Your task to perform on an android device: Go to Reddit.com Image 0: 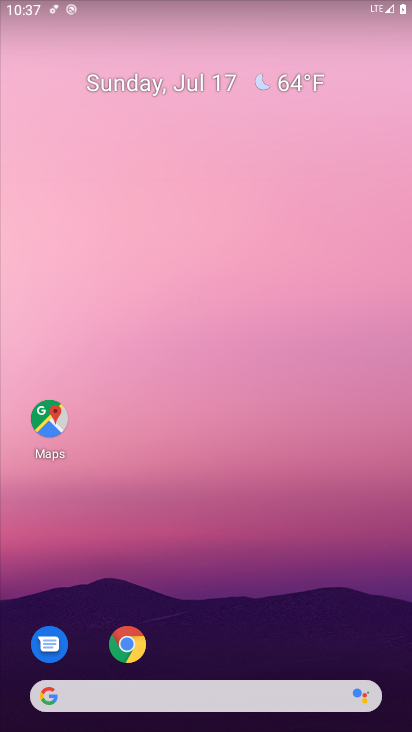
Step 0: press home button
Your task to perform on an android device: Go to Reddit.com Image 1: 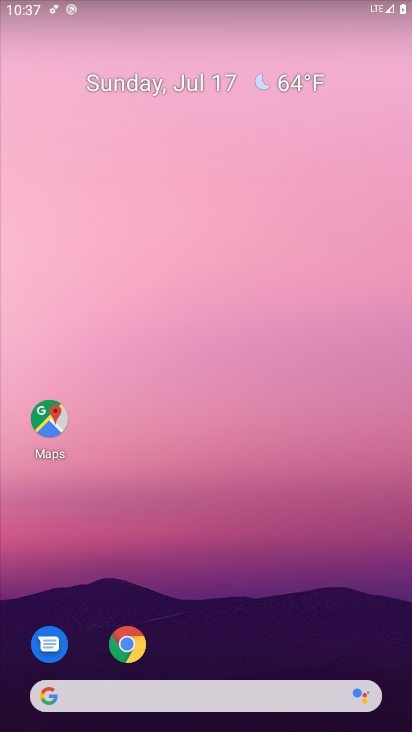
Step 1: click (50, 698)
Your task to perform on an android device: Go to Reddit.com Image 2: 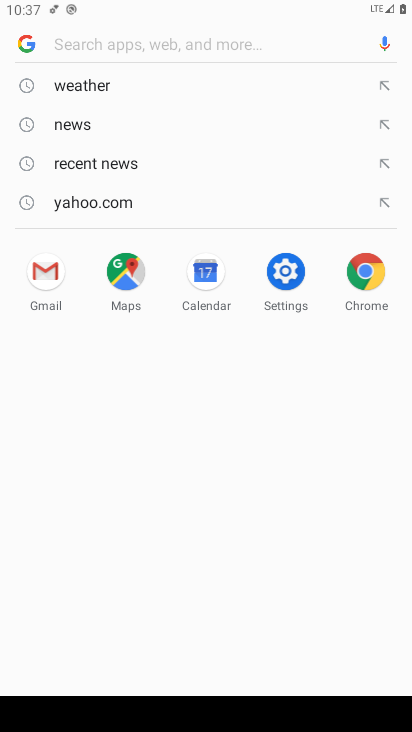
Step 2: type "Reddit.com"
Your task to perform on an android device: Go to Reddit.com Image 3: 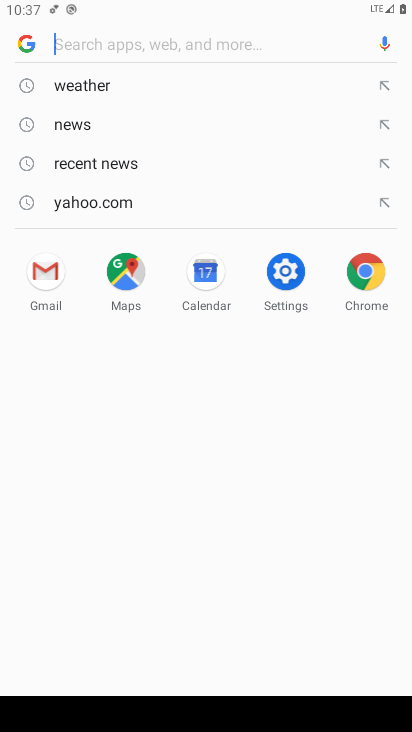
Step 3: click (58, 42)
Your task to perform on an android device: Go to Reddit.com Image 4: 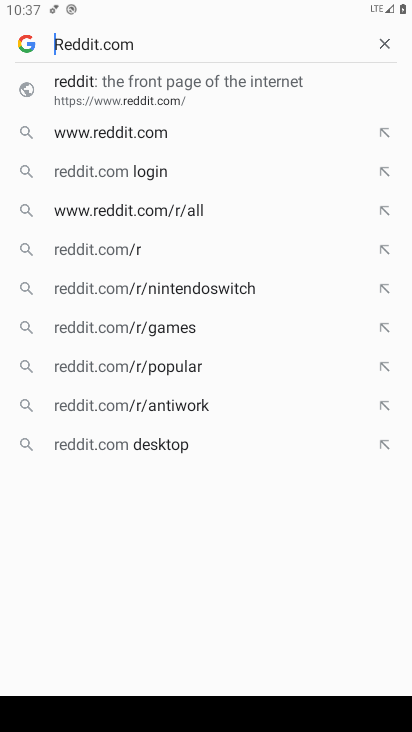
Step 4: press enter
Your task to perform on an android device: Go to Reddit.com Image 5: 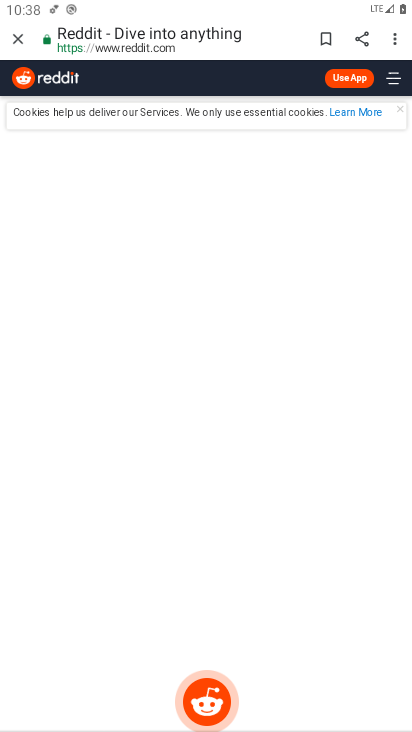
Step 5: task complete